Your task to perform on an android device: delete location history Image 0: 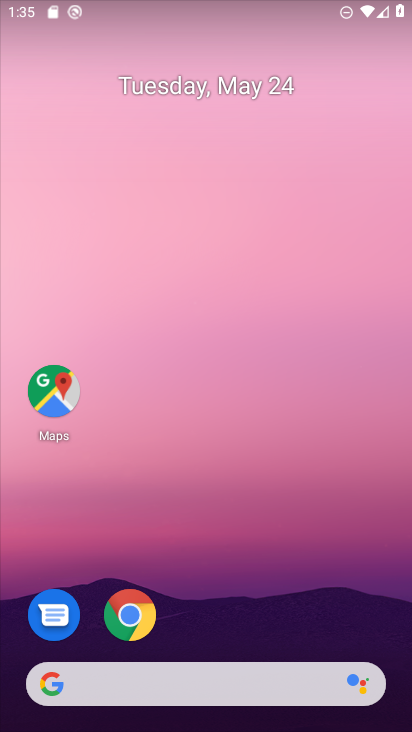
Step 0: click (57, 373)
Your task to perform on an android device: delete location history Image 1: 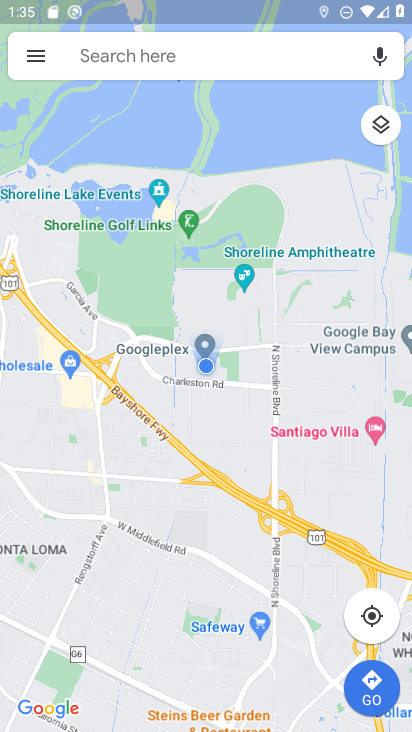
Step 1: click (36, 44)
Your task to perform on an android device: delete location history Image 2: 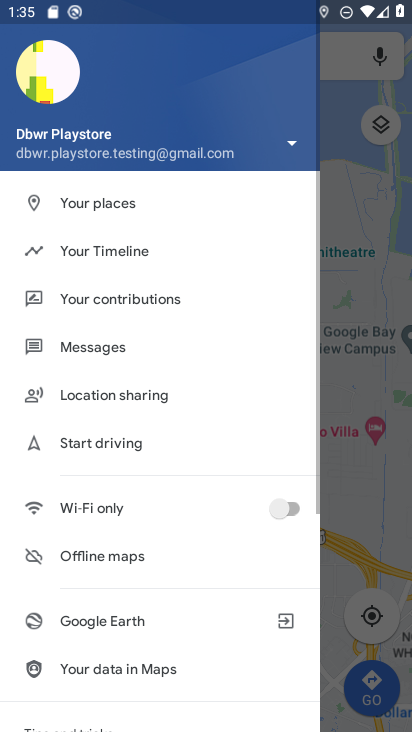
Step 2: click (98, 248)
Your task to perform on an android device: delete location history Image 3: 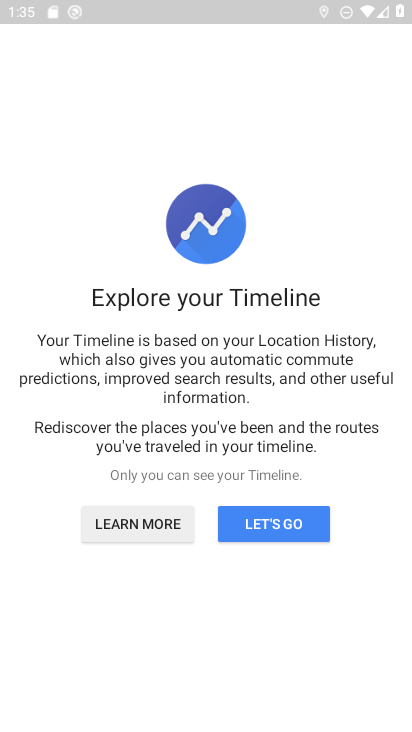
Step 3: click (297, 529)
Your task to perform on an android device: delete location history Image 4: 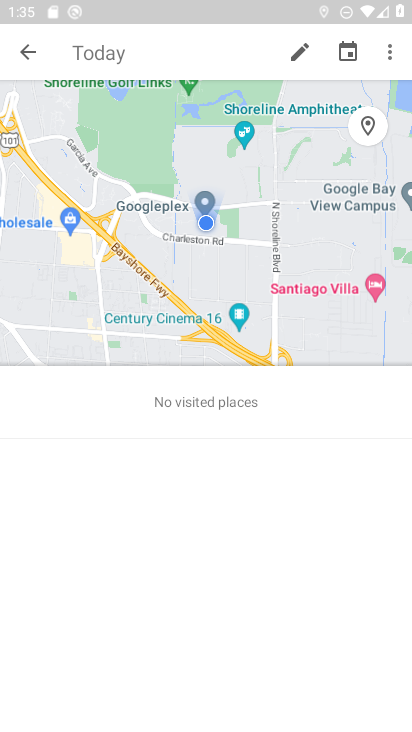
Step 4: click (392, 44)
Your task to perform on an android device: delete location history Image 5: 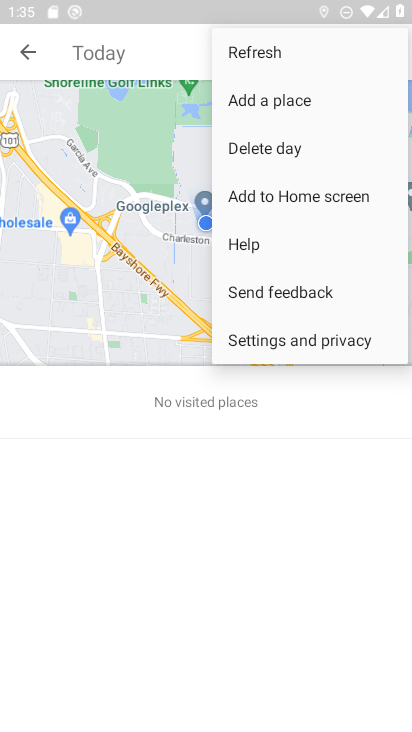
Step 5: click (256, 332)
Your task to perform on an android device: delete location history Image 6: 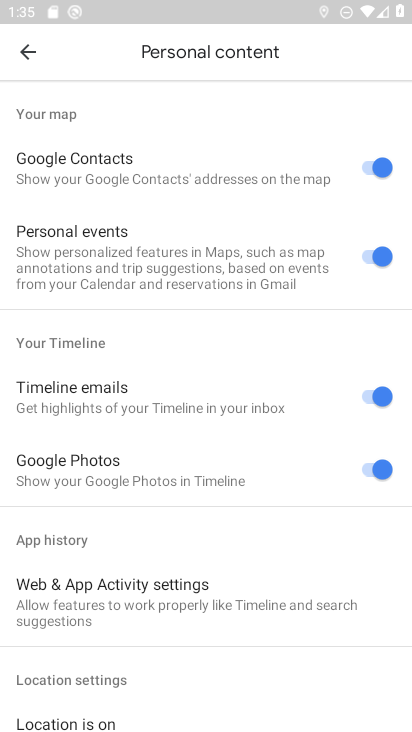
Step 6: drag from (148, 619) to (203, 229)
Your task to perform on an android device: delete location history Image 7: 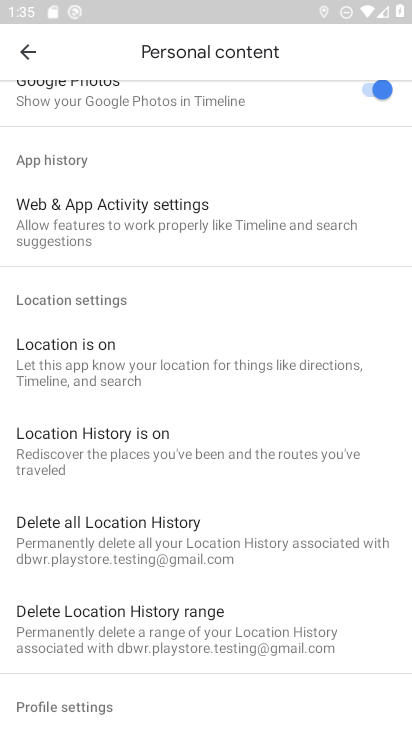
Step 7: click (123, 529)
Your task to perform on an android device: delete location history Image 8: 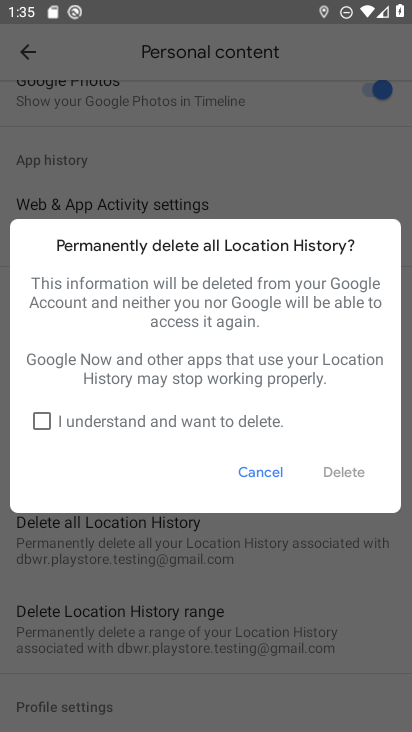
Step 8: click (40, 423)
Your task to perform on an android device: delete location history Image 9: 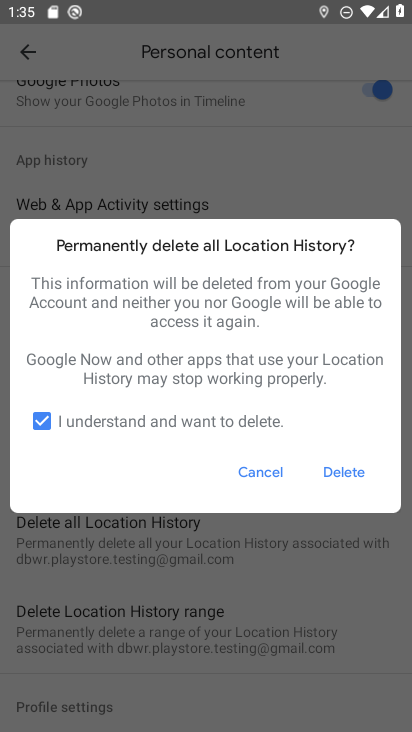
Step 9: click (350, 460)
Your task to perform on an android device: delete location history Image 10: 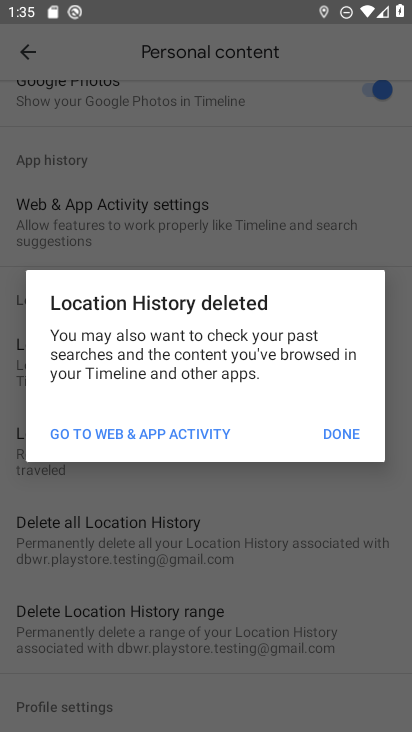
Step 10: click (342, 413)
Your task to perform on an android device: delete location history Image 11: 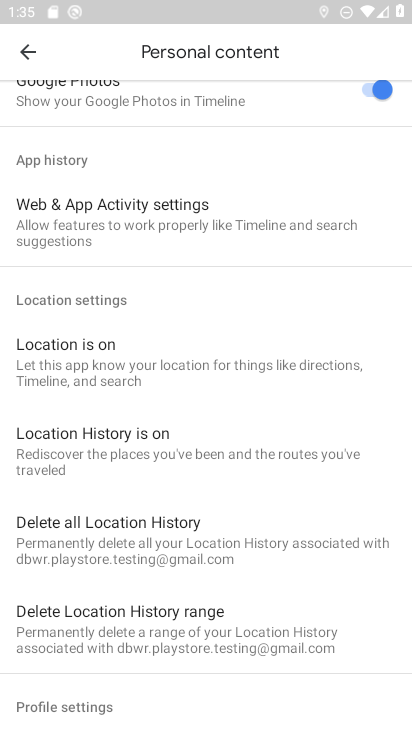
Step 11: click (137, 531)
Your task to perform on an android device: delete location history Image 12: 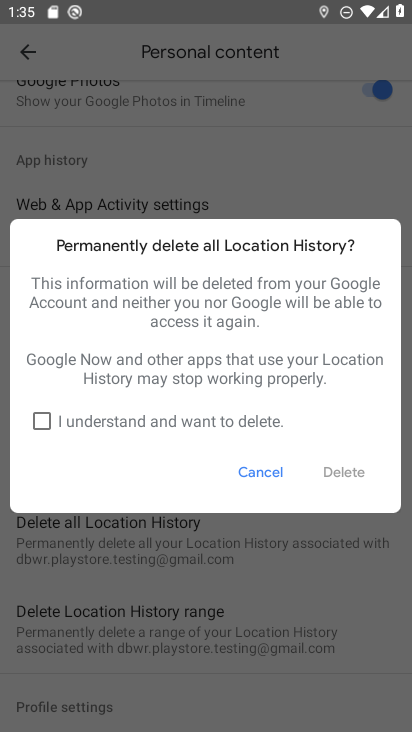
Step 12: click (57, 429)
Your task to perform on an android device: delete location history Image 13: 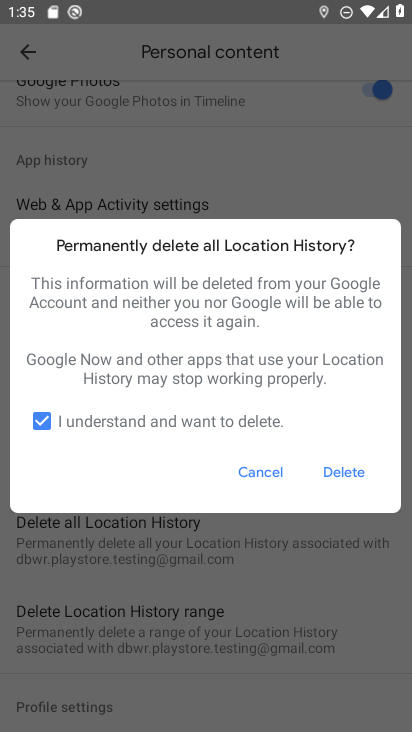
Step 13: click (323, 465)
Your task to perform on an android device: delete location history Image 14: 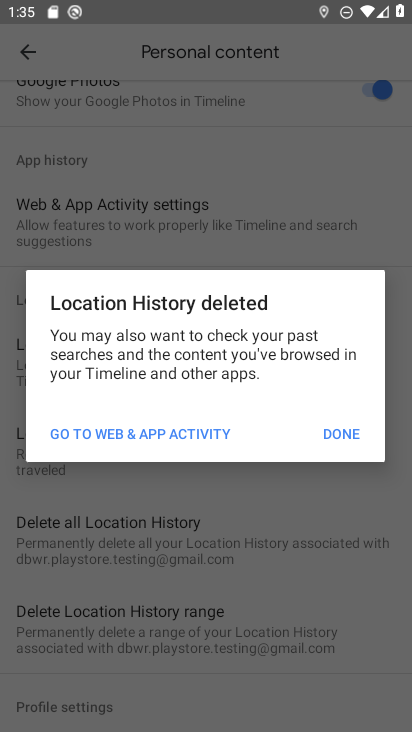
Step 14: task complete